Your task to perform on an android device: choose inbox layout in the gmail app Image 0: 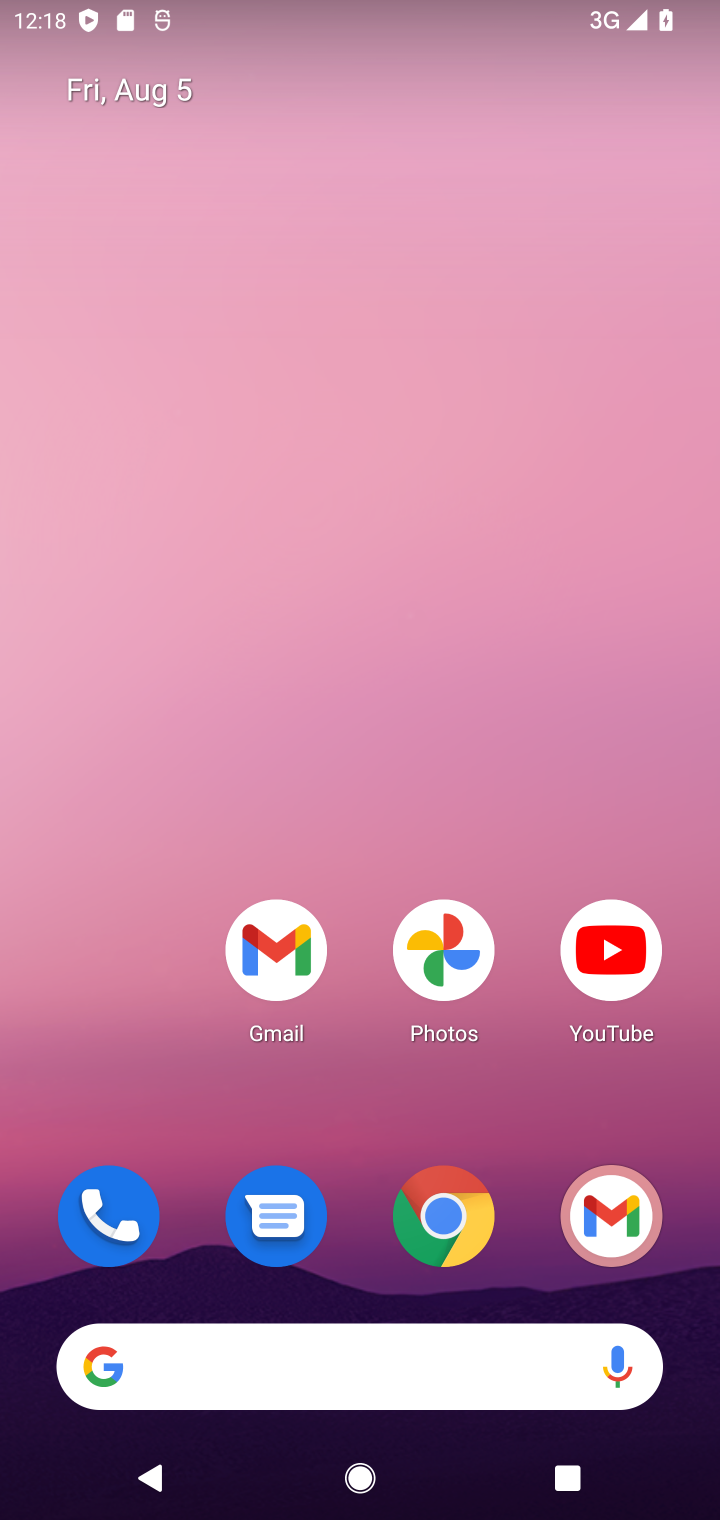
Step 0: drag from (492, 1381) to (479, 79)
Your task to perform on an android device: choose inbox layout in the gmail app Image 1: 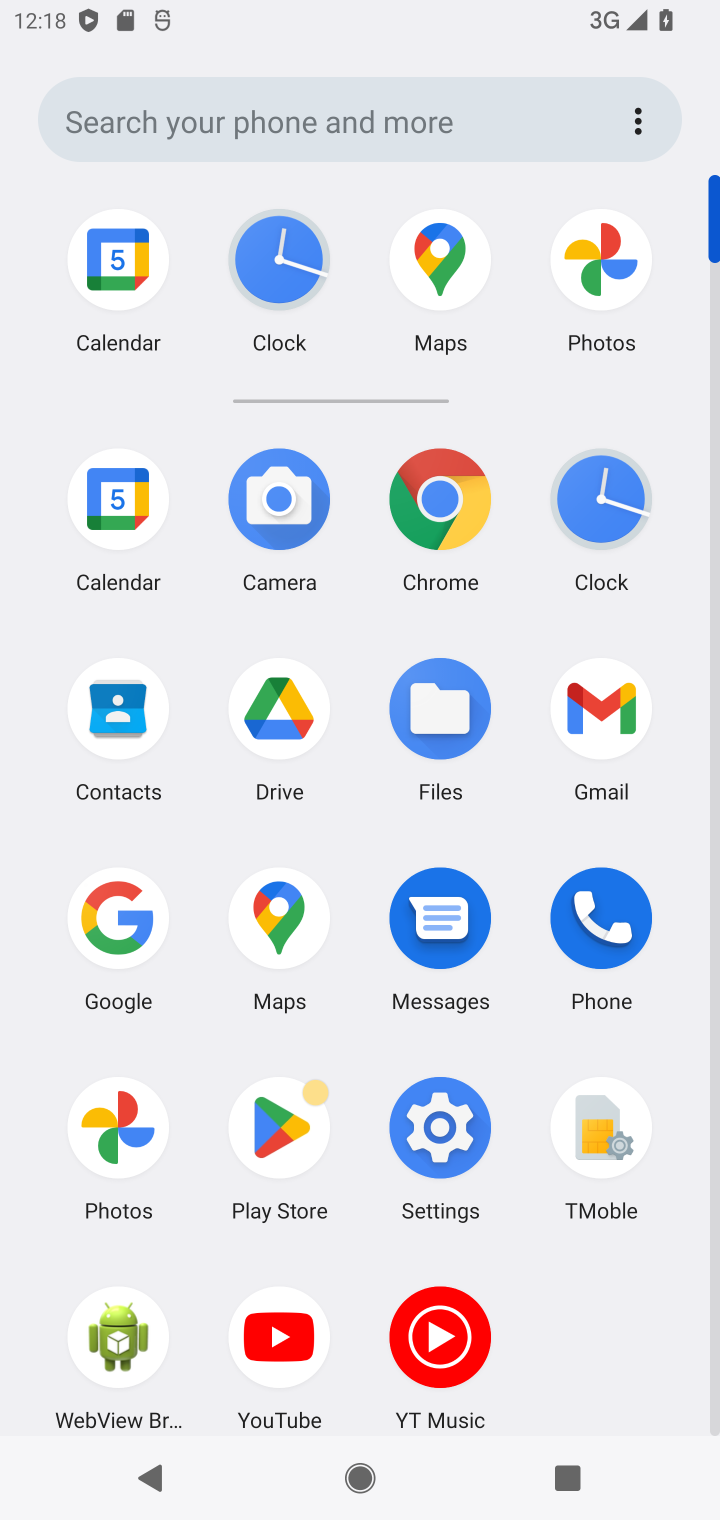
Step 1: click (595, 700)
Your task to perform on an android device: choose inbox layout in the gmail app Image 2: 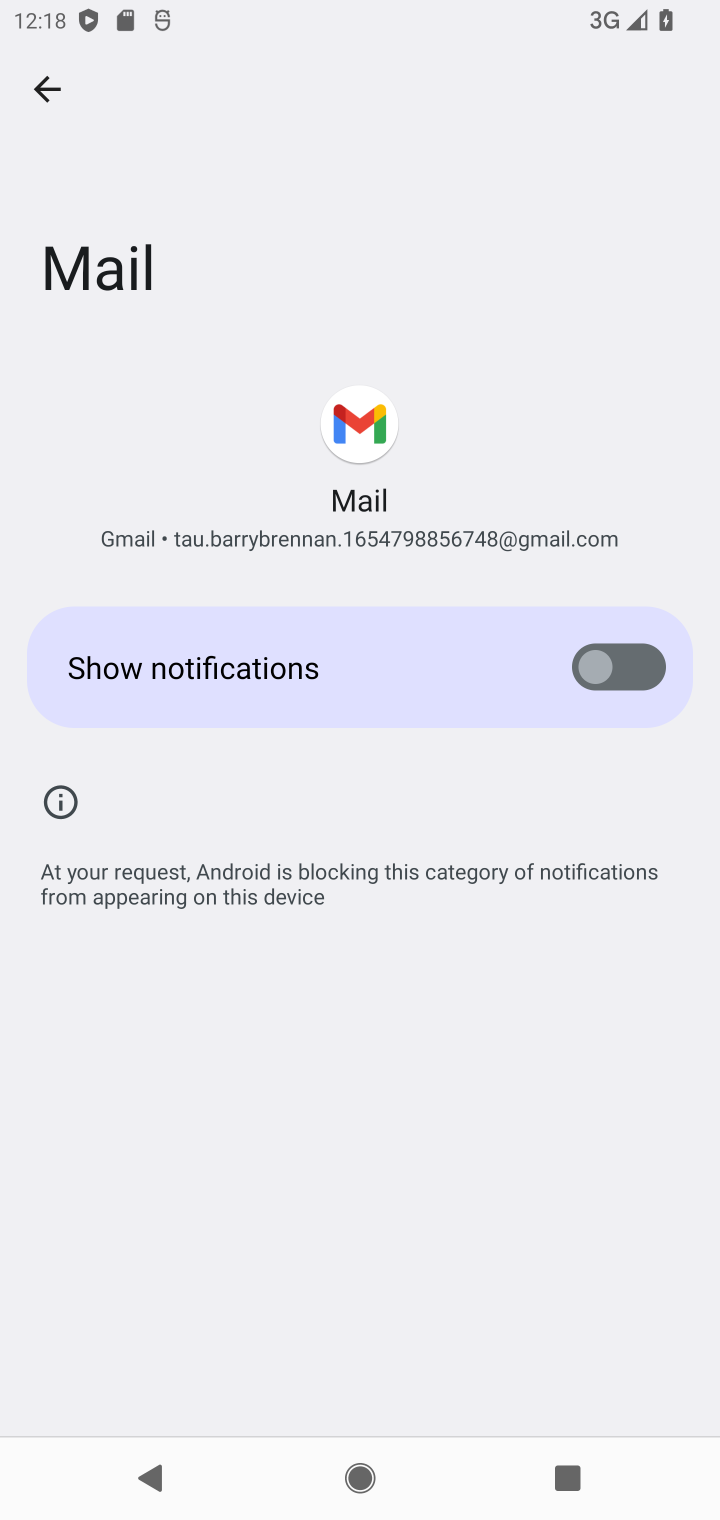
Step 2: press back button
Your task to perform on an android device: choose inbox layout in the gmail app Image 3: 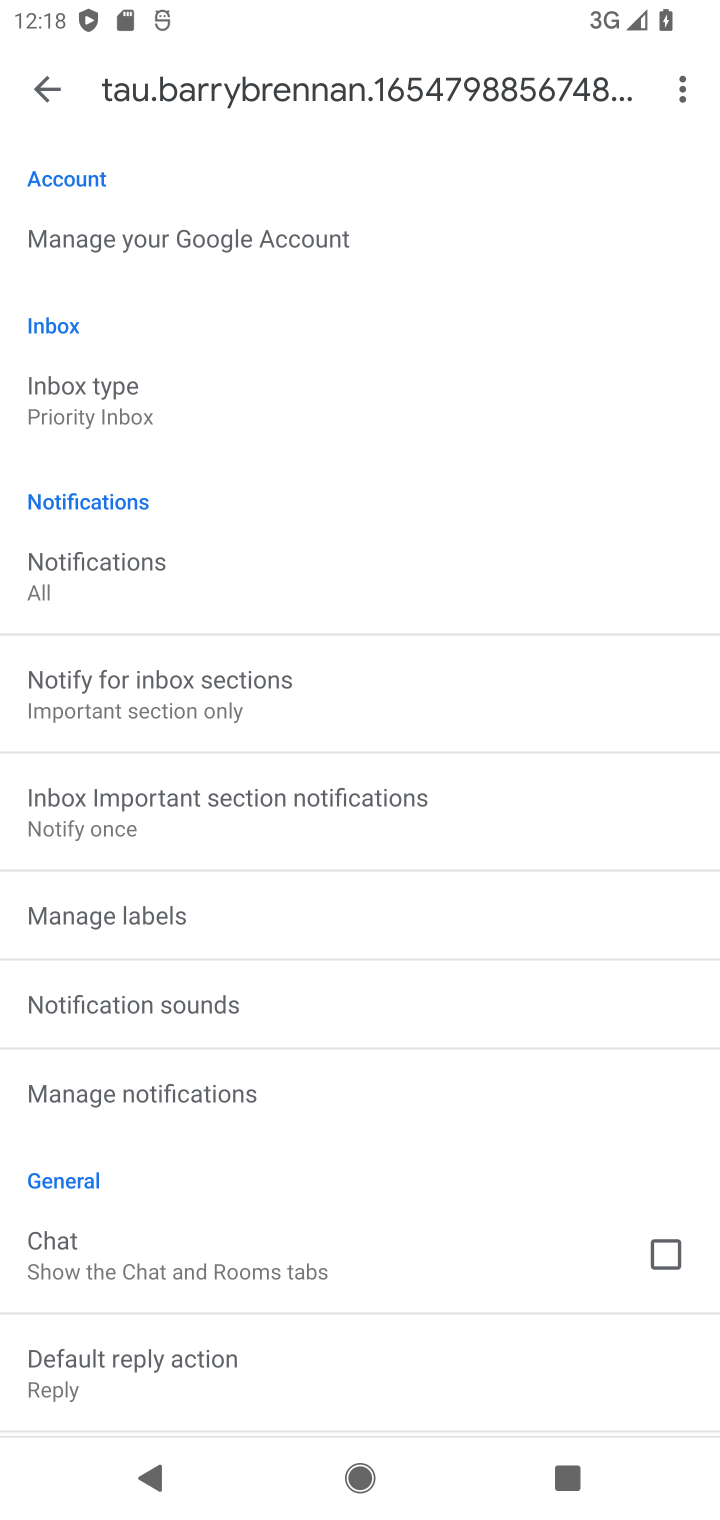
Step 3: click (135, 402)
Your task to perform on an android device: choose inbox layout in the gmail app Image 4: 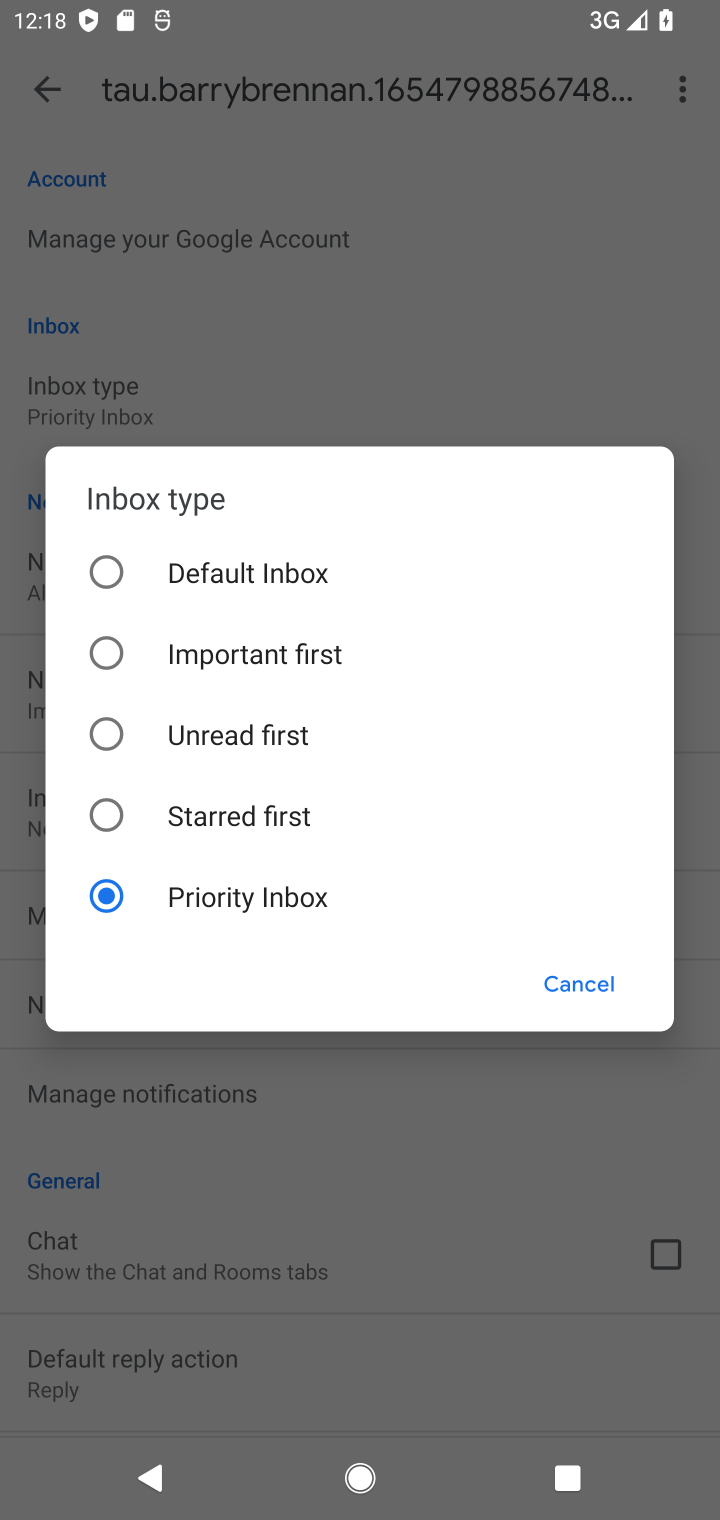
Step 4: click (112, 568)
Your task to perform on an android device: choose inbox layout in the gmail app Image 5: 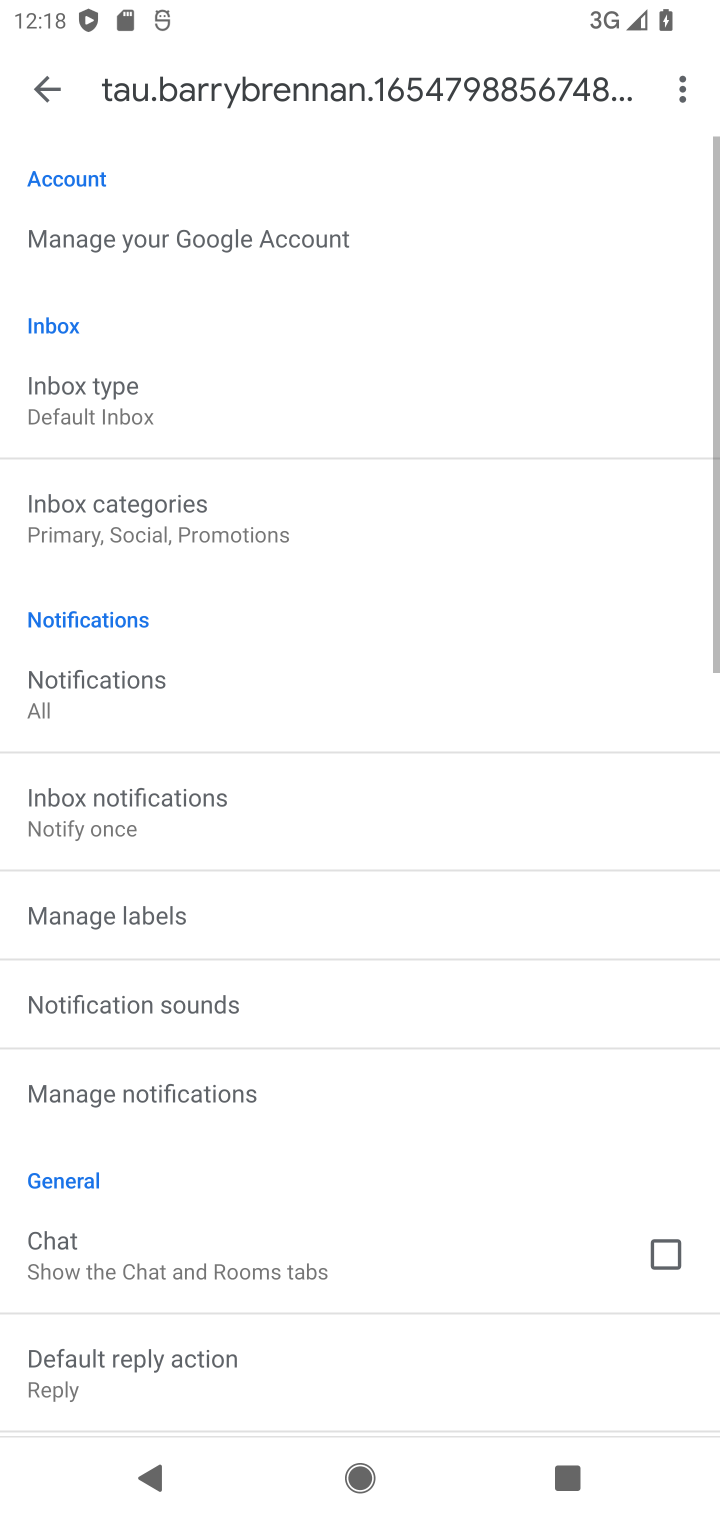
Step 5: task complete